Your task to perform on an android device: delete the emails in spam in the gmail app Image 0: 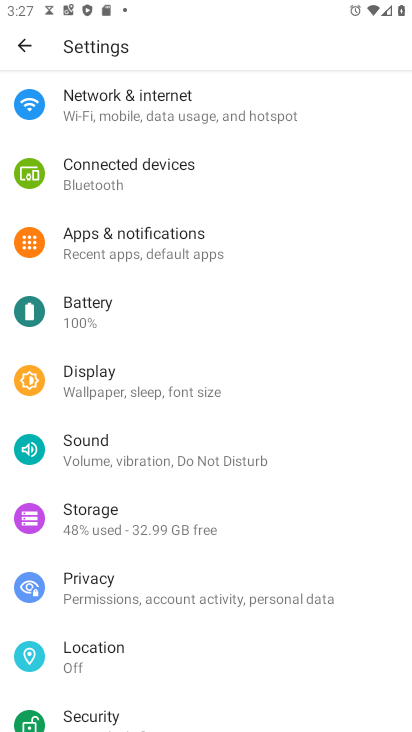
Step 0: press home button
Your task to perform on an android device: delete the emails in spam in the gmail app Image 1: 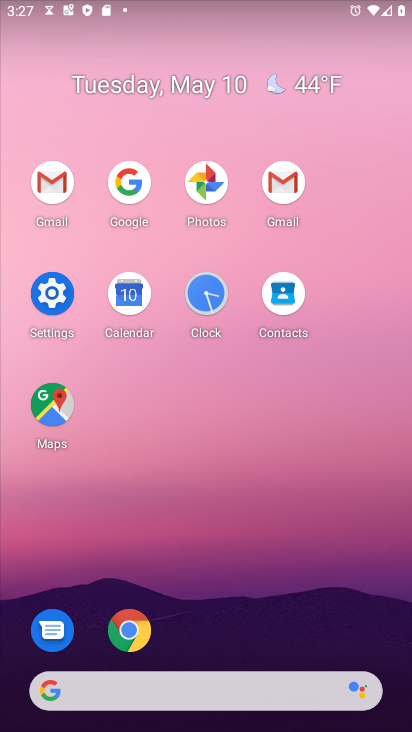
Step 1: click (283, 198)
Your task to perform on an android device: delete the emails in spam in the gmail app Image 2: 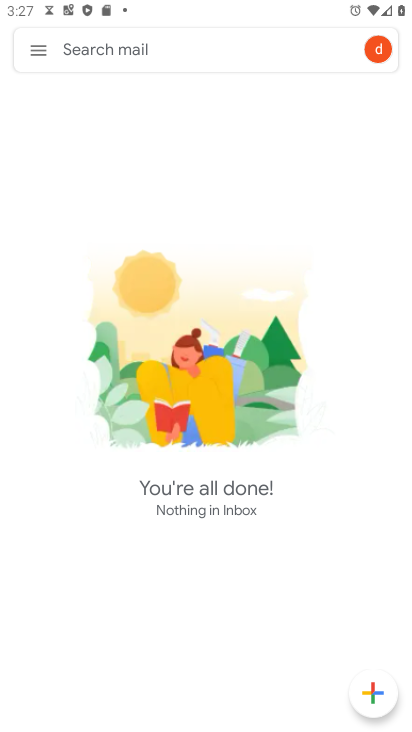
Step 2: click (35, 46)
Your task to perform on an android device: delete the emails in spam in the gmail app Image 3: 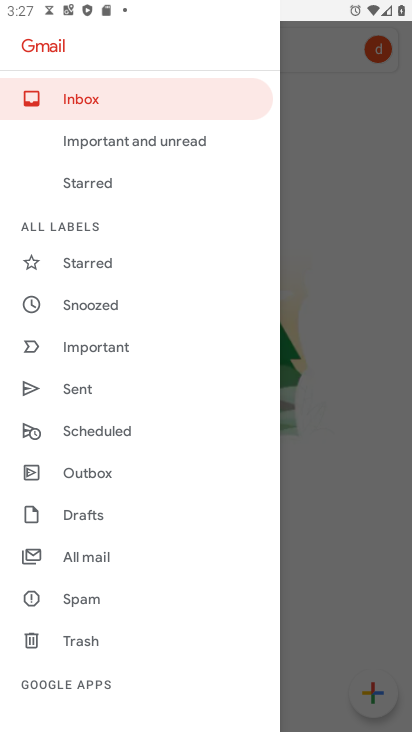
Step 3: click (82, 562)
Your task to perform on an android device: delete the emails in spam in the gmail app Image 4: 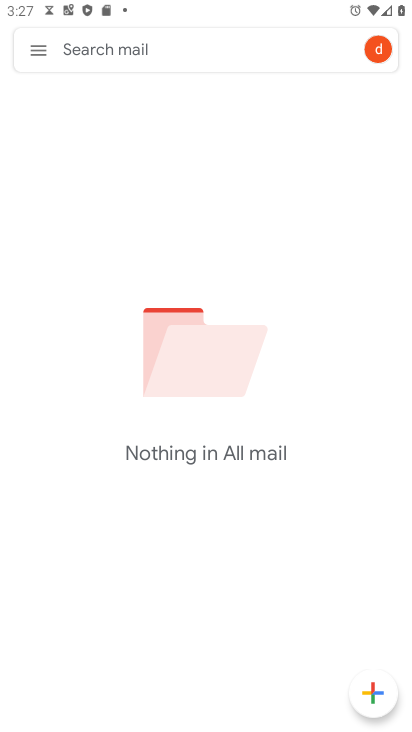
Step 4: task complete